Your task to perform on an android device: Turn off the flashlight Image 0: 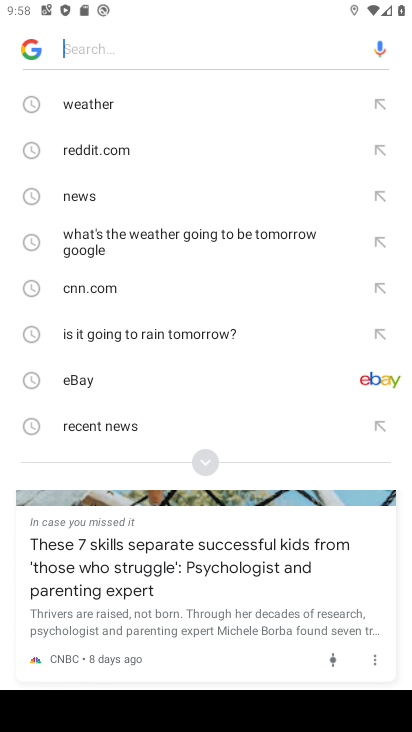
Step 0: press back button
Your task to perform on an android device: Turn off the flashlight Image 1: 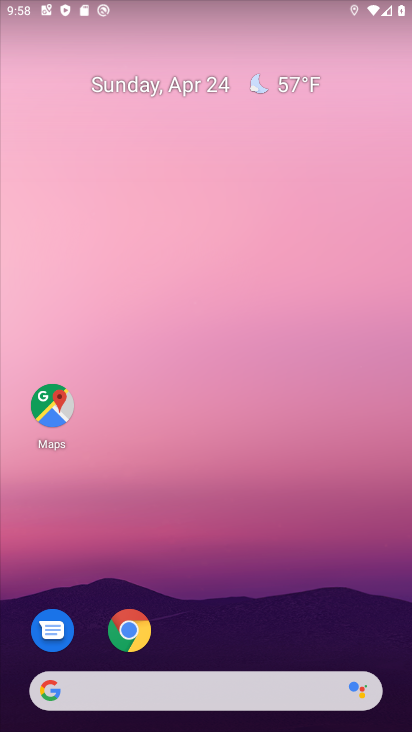
Step 1: drag from (224, 582) to (205, 76)
Your task to perform on an android device: Turn off the flashlight Image 2: 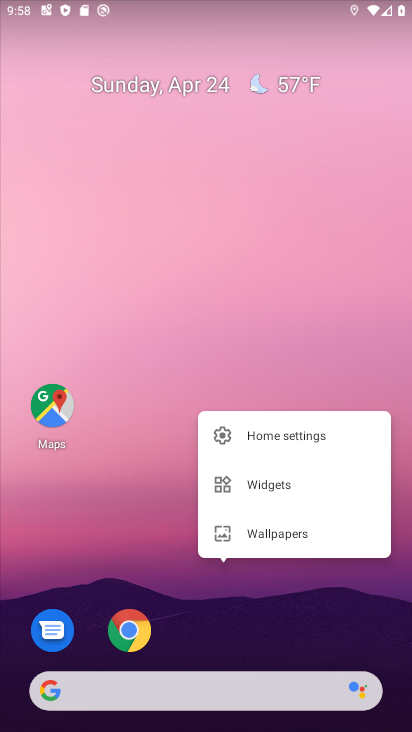
Step 2: drag from (138, 543) to (143, 32)
Your task to perform on an android device: Turn off the flashlight Image 3: 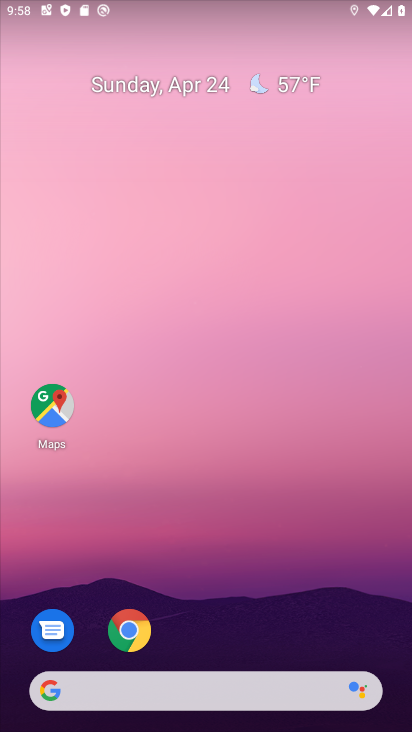
Step 3: drag from (200, 551) to (189, 25)
Your task to perform on an android device: Turn off the flashlight Image 4: 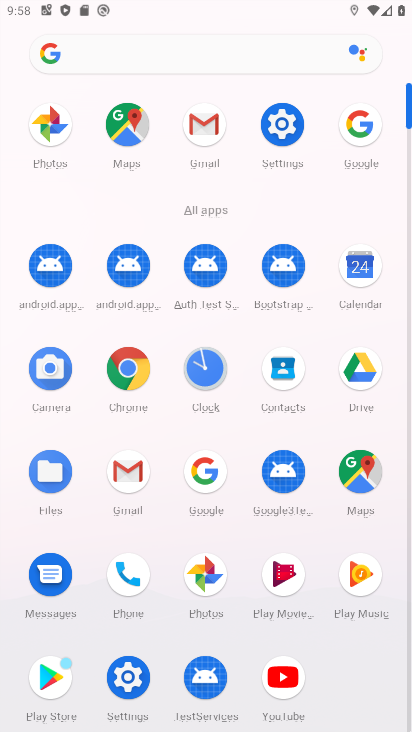
Step 4: click (284, 125)
Your task to perform on an android device: Turn off the flashlight Image 5: 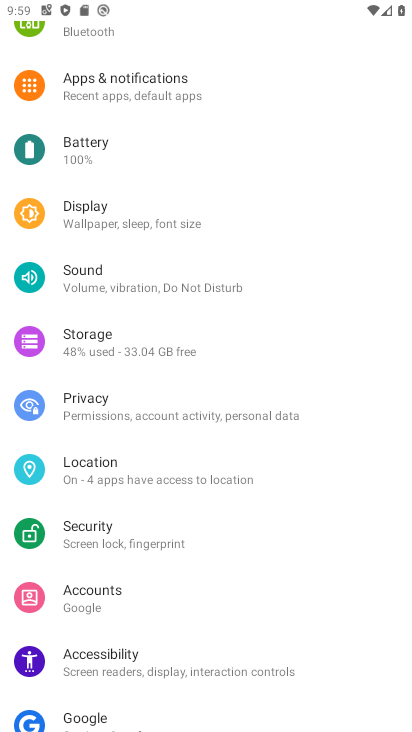
Step 5: drag from (165, 164) to (157, 248)
Your task to perform on an android device: Turn off the flashlight Image 6: 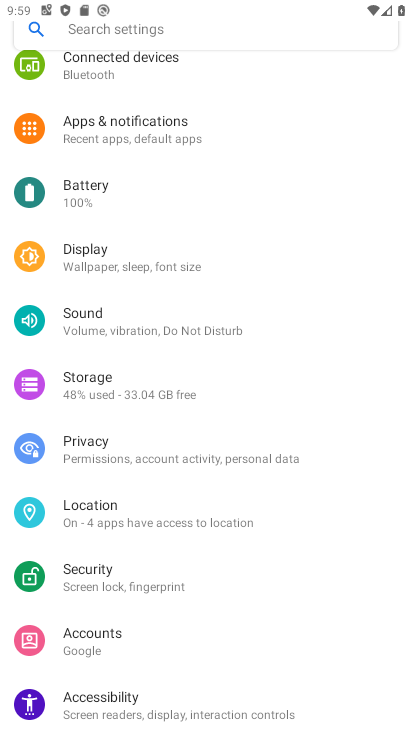
Step 6: drag from (123, 366) to (184, 266)
Your task to perform on an android device: Turn off the flashlight Image 7: 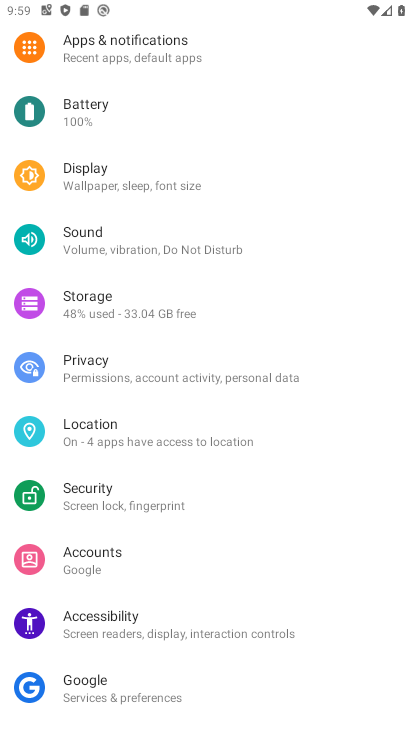
Step 7: click (151, 188)
Your task to perform on an android device: Turn off the flashlight Image 8: 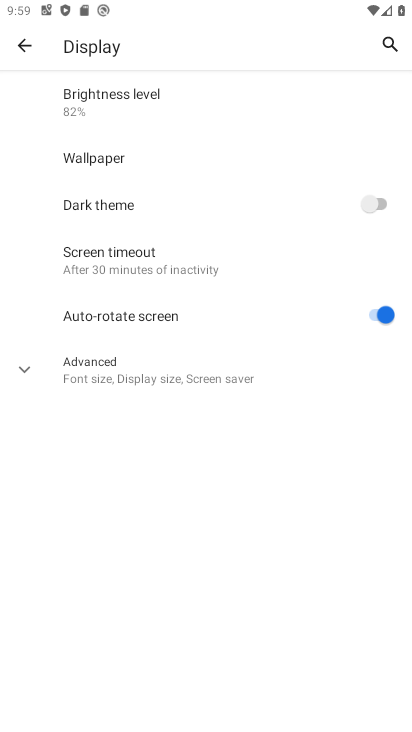
Step 8: click (125, 370)
Your task to perform on an android device: Turn off the flashlight Image 9: 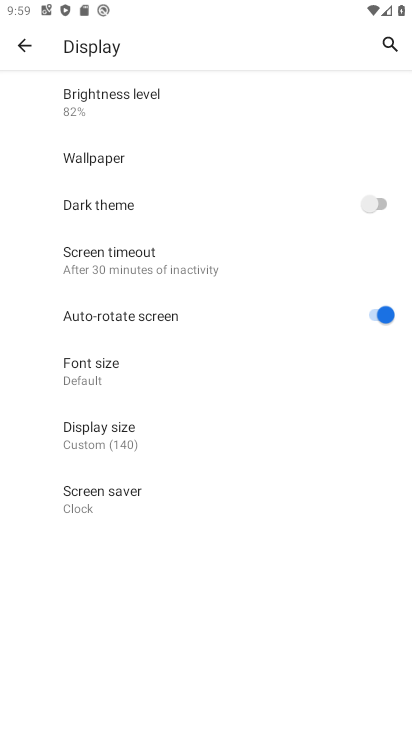
Step 9: drag from (162, 444) to (166, 294)
Your task to perform on an android device: Turn off the flashlight Image 10: 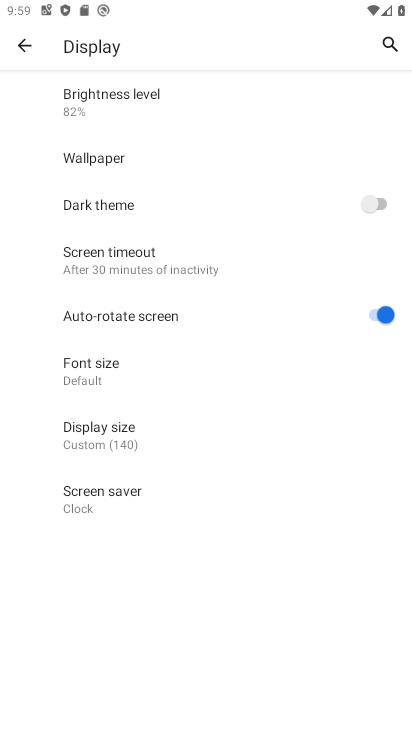
Step 10: press back button
Your task to perform on an android device: Turn off the flashlight Image 11: 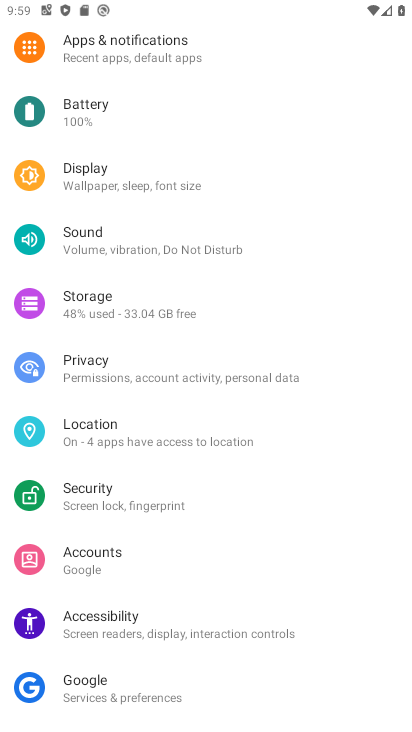
Step 11: drag from (144, 477) to (177, 394)
Your task to perform on an android device: Turn off the flashlight Image 12: 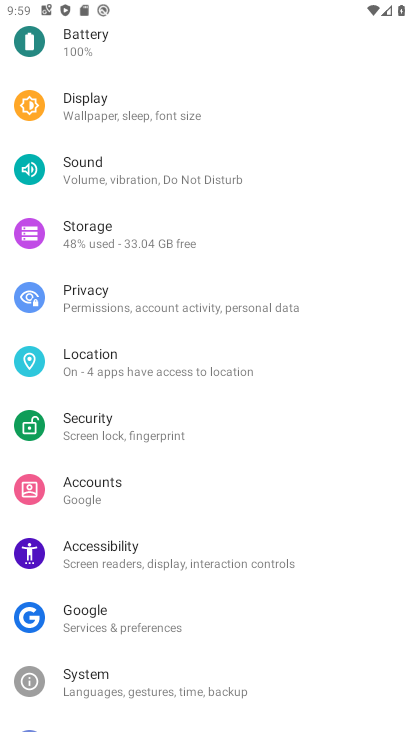
Step 12: drag from (153, 483) to (178, 402)
Your task to perform on an android device: Turn off the flashlight Image 13: 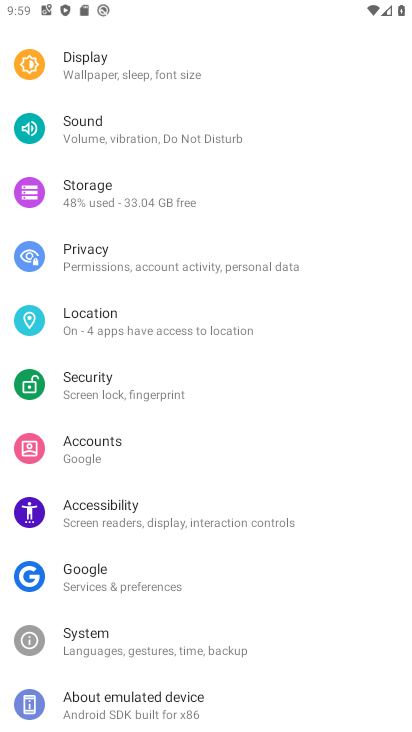
Step 13: drag from (144, 484) to (196, 375)
Your task to perform on an android device: Turn off the flashlight Image 14: 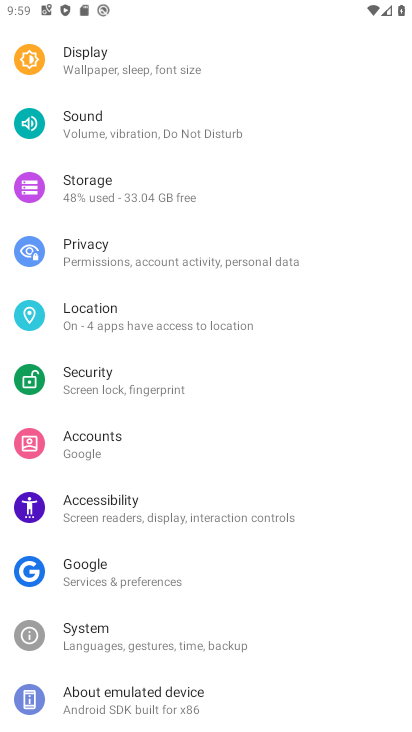
Step 14: drag from (134, 480) to (152, 396)
Your task to perform on an android device: Turn off the flashlight Image 15: 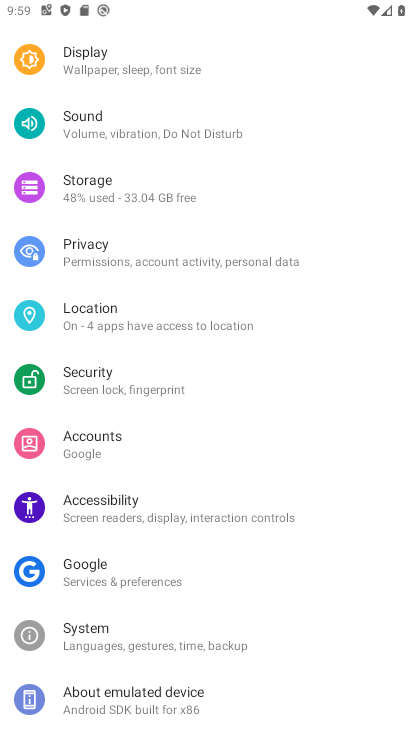
Step 15: drag from (116, 356) to (153, 441)
Your task to perform on an android device: Turn off the flashlight Image 16: 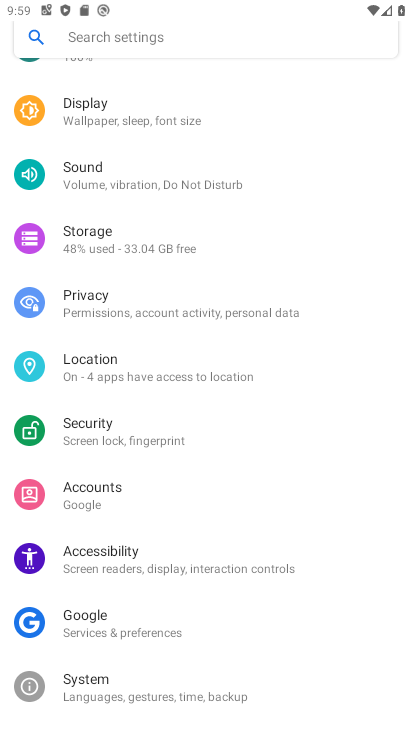
Step 16: drag from (128, 330) to (150, 425)
Your task to perform on an android device: Turn off the flashlight Image 17: 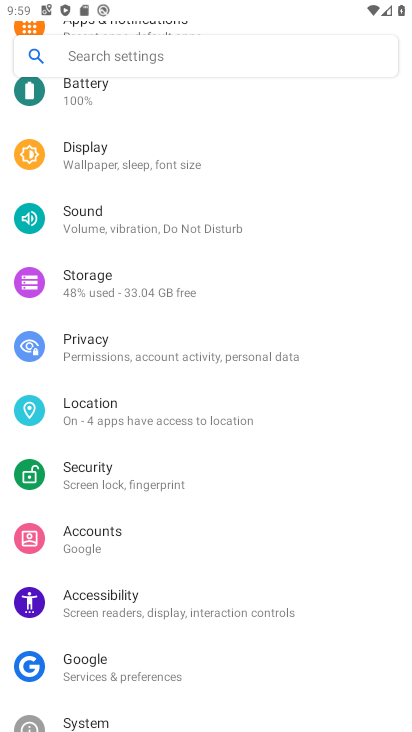
Step 17: drag from (124, 268) to (158, 435)
Your task to perform on an android device: Turn off the flashlight Image 18: 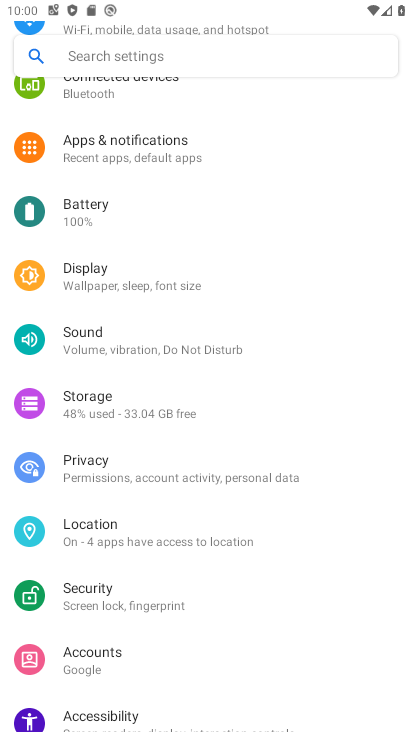
Step 18: drag from (127, 257) to (160, 402)
Your task to perform on an android device: Turn off the flashlight Image 19: 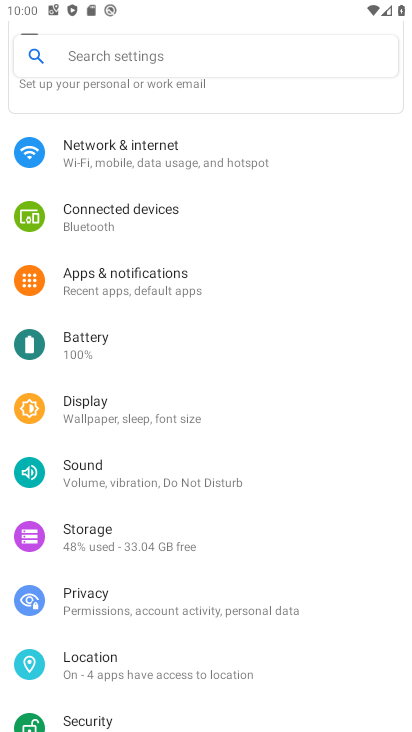
Step 19: drag from (125, 240) to (145, 396)
Your task to perform on an android device: Turn off the flashlight Image 20: 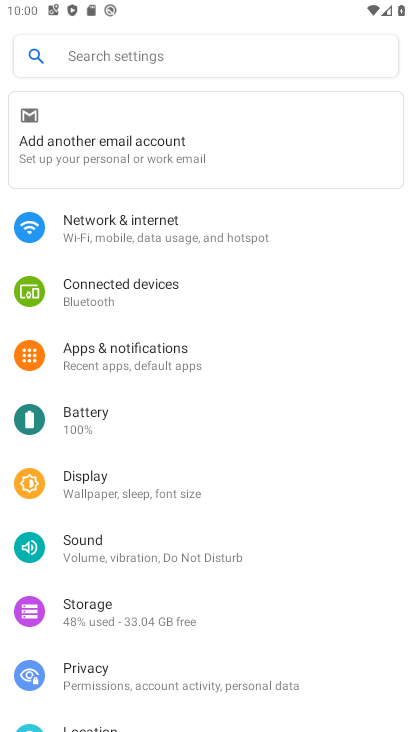
Step 20: drag from (99, 576) to (191, 440)
Your task to perform on an android device: Turn off the flashlight Image 21: 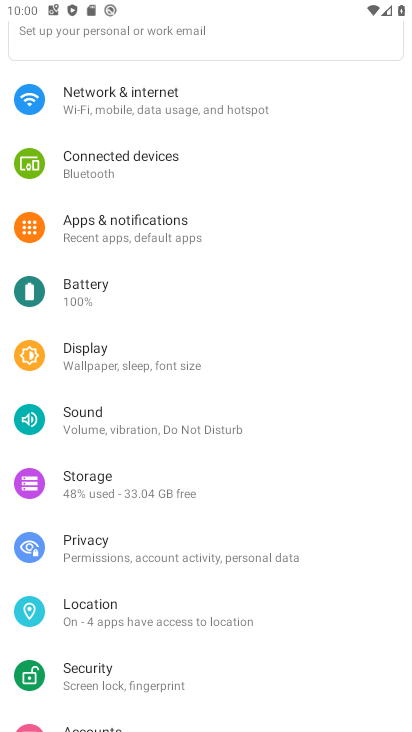
Step 21: drag from (125, 572) to (197, 474)
Your task to perform on an android device: Turn off the flashlight Image 22: 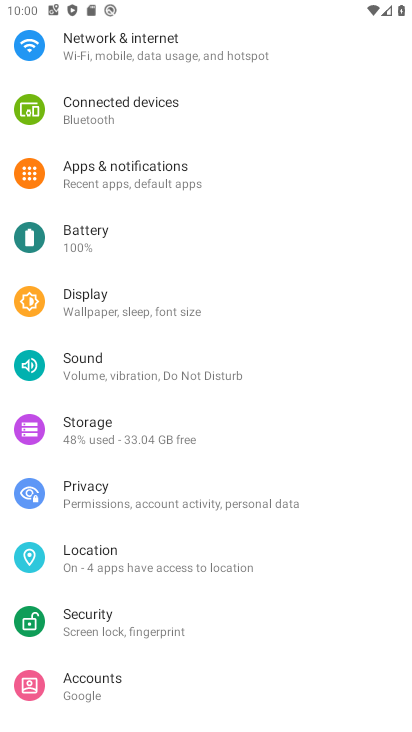
Step 22: drag from (121, 594) to (207, 491)
Your task to perform on an android device: Turn off the flashlight Image 23: 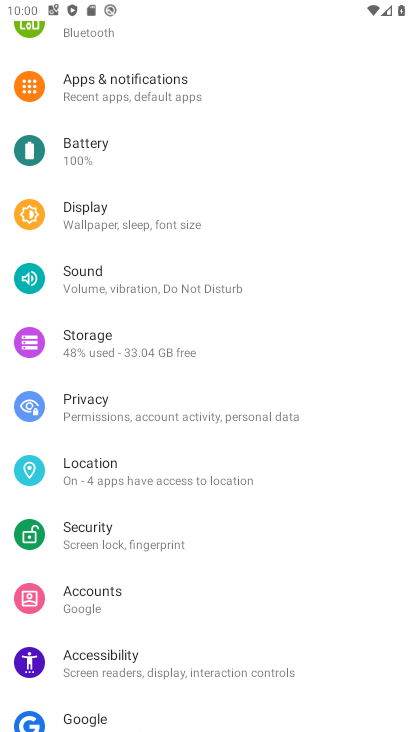
Step 23: drag from (145, 596) to (234, 496)
Your task to perform on an android device: Turn off the flashlight Image 24: 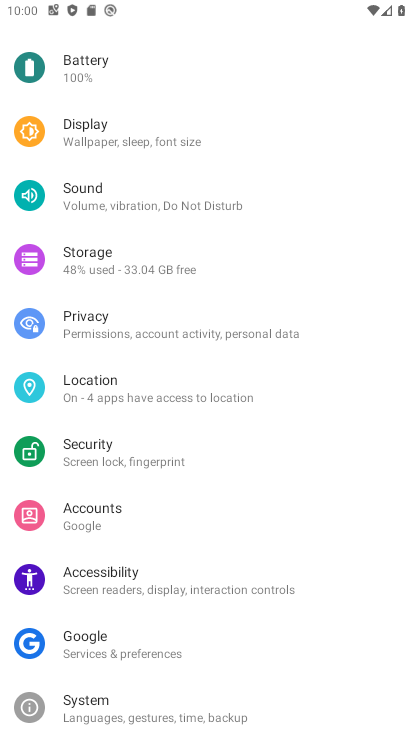
Step 24: drag from (125, 602) to (224, 488)
Your task to perform on an android device: Turn off the flashlight Image 25: 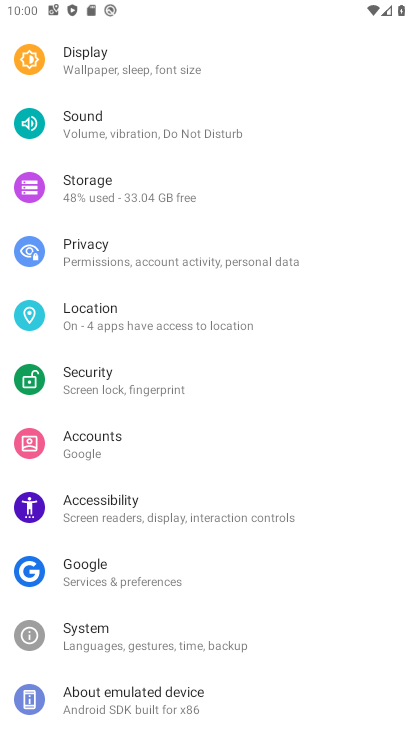
Step 25: drag from (133, 624) to (224, 510)
Your task to perform on an android device: Turn off the flashlight Image 26: 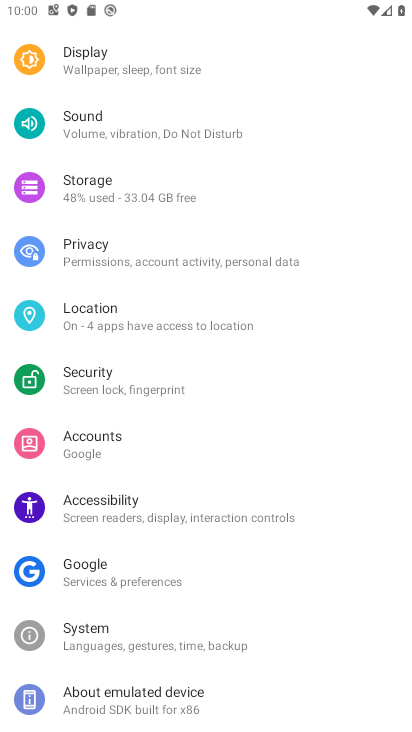
Step 26: click (151, 645)
Your task to perform on an android device: Turn off the flashlight Image 27: 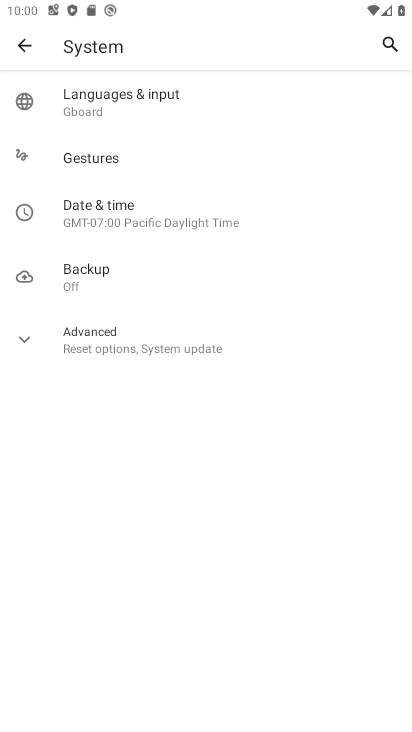
Step 27: click (81, 338)
Your task to perform on an android device: Turn off the flashlight Image 28: 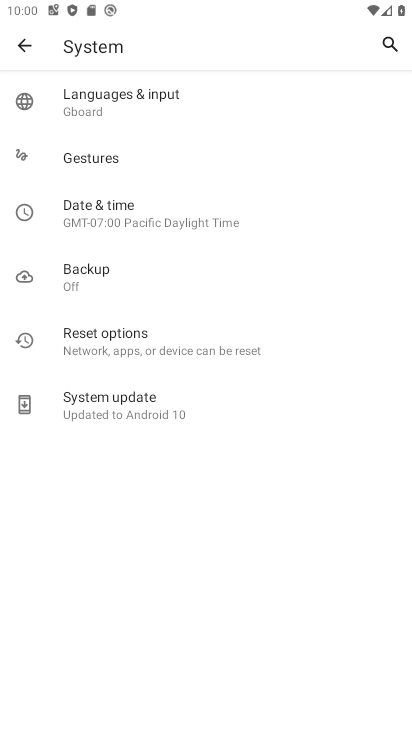
Step 28: task complete